Your task to perform on an android device: Open maps Image 0: 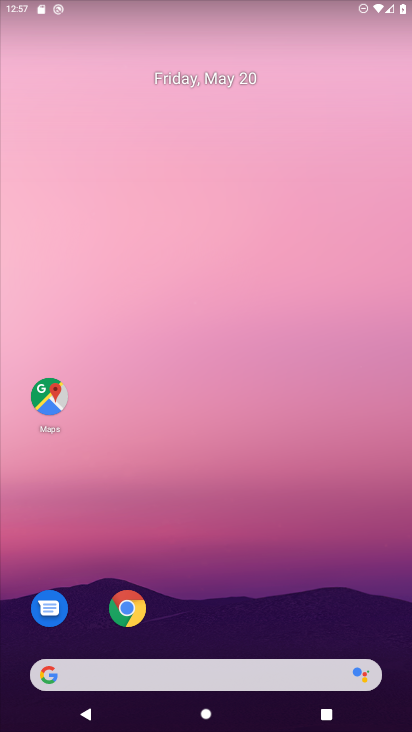
Step 0: click (50, 393)
Your task to perform on an android device: Open maps Image 1: 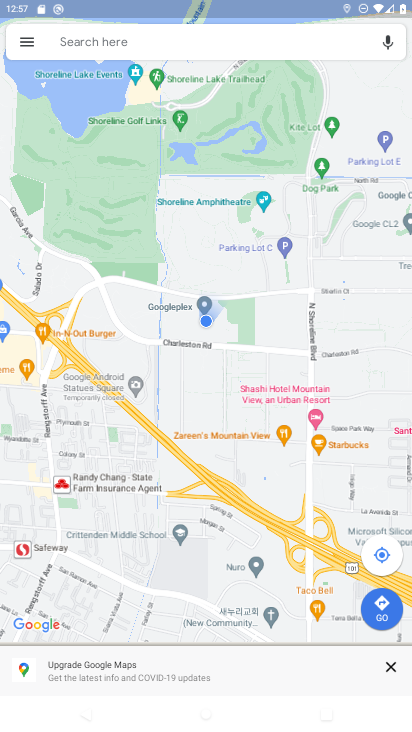
Step 1: task complete